Your task to perform on an android device: add a contact Image 0: 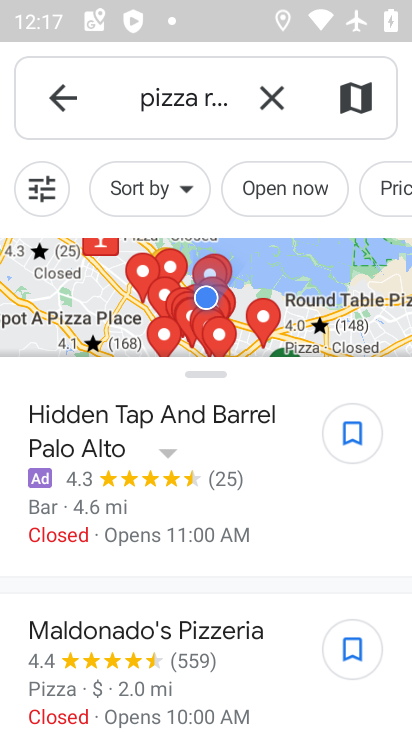
Step 0: press home button
Your task to perform on an android device: add a contact Image 1: 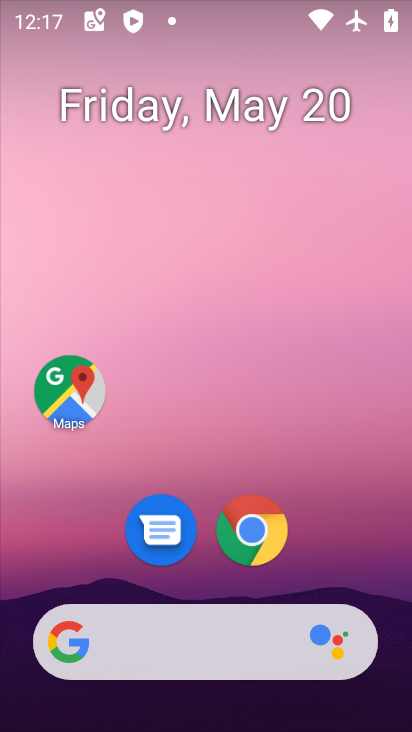
Step 1: drag from (188, 683) to (242, 145)
Your task to perform on an android device: add a contact Image 2: 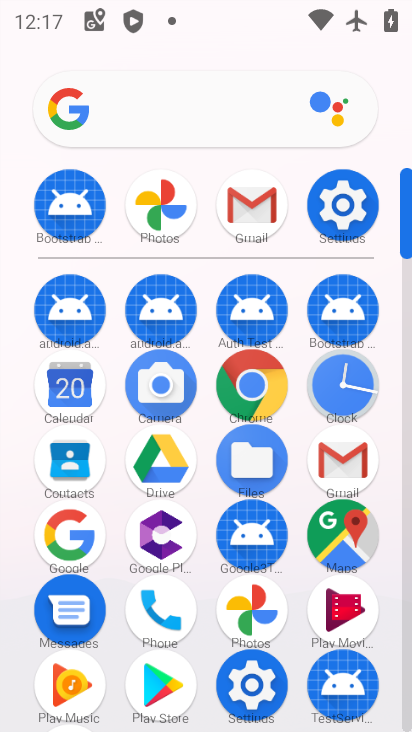
Step 2: click (64, 465)
Your task to perform on an android device: add a contact Image 3: 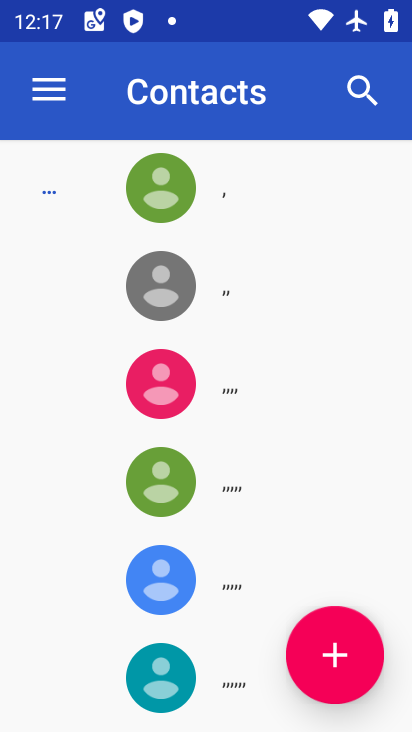
Step 3: click (351, 668)
Your task to perform on an android device: add a contact Image 4: 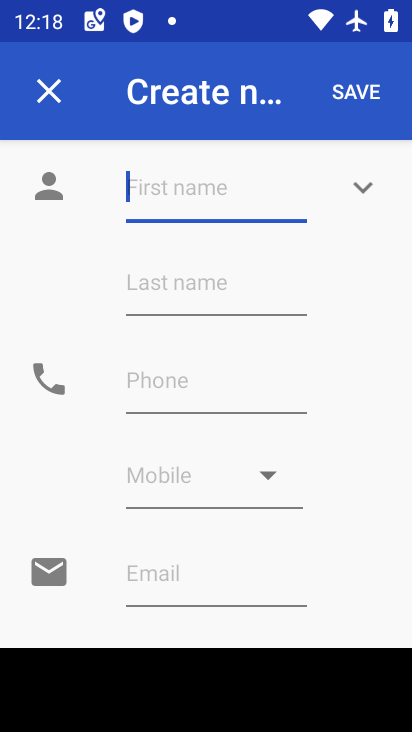
Step 4: type "jgfjh"
Your task to perform on an android device: add a contact Image 5: 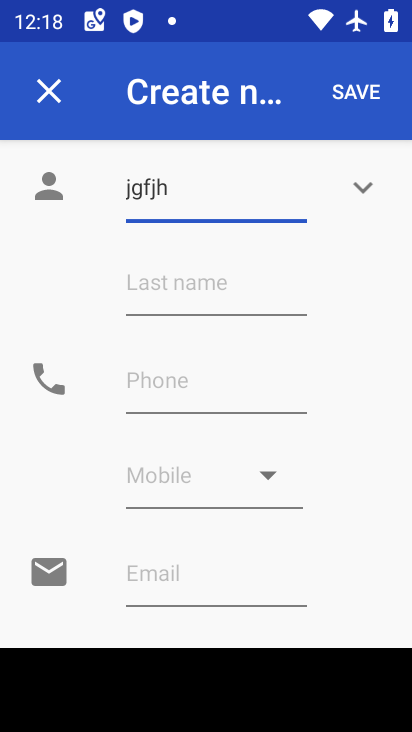
Step 5: click (247, 395)
Your task to perform on an android device: add a contact Image 6: 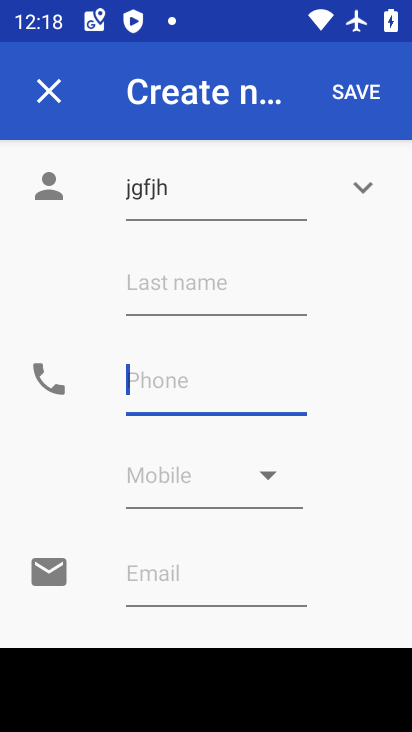
Step 6: type "8999"
Your task to perform on an android device: add a contact Image 7: 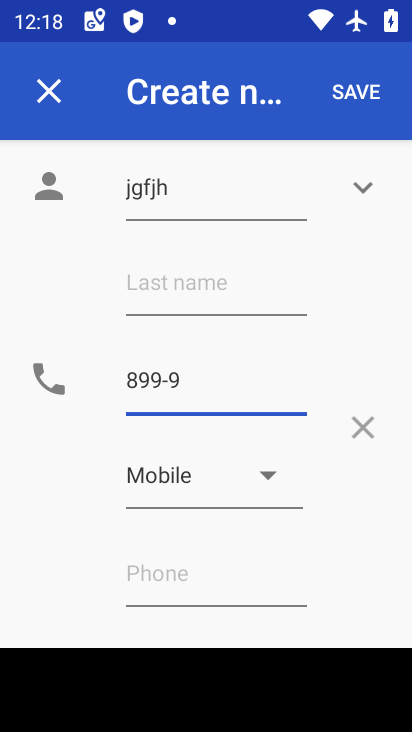
Step 7: click (362, 98)
Your task to perform on an android device: add a contact Image 8: 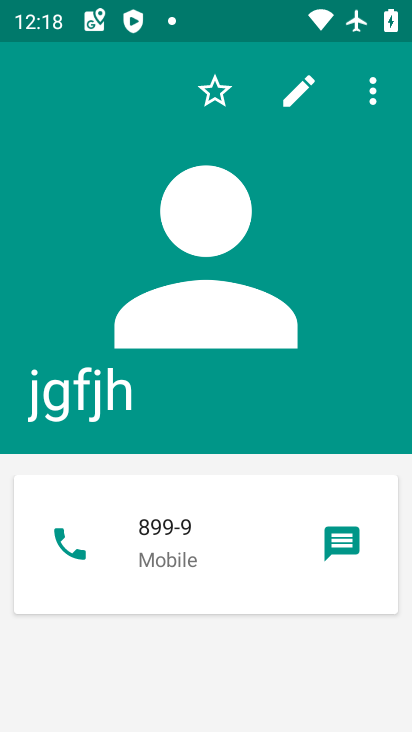
Step 8: task complete